Your task to perform on an android device: change the clock display to show seconds Image 0: 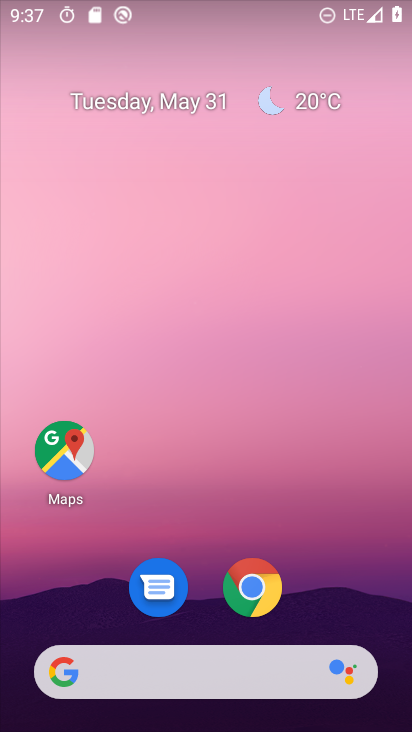
Step 0: drag from (205, 623) to (266, 59)
Your task to perform on an android device: change the clock display to show seconds Image 1: 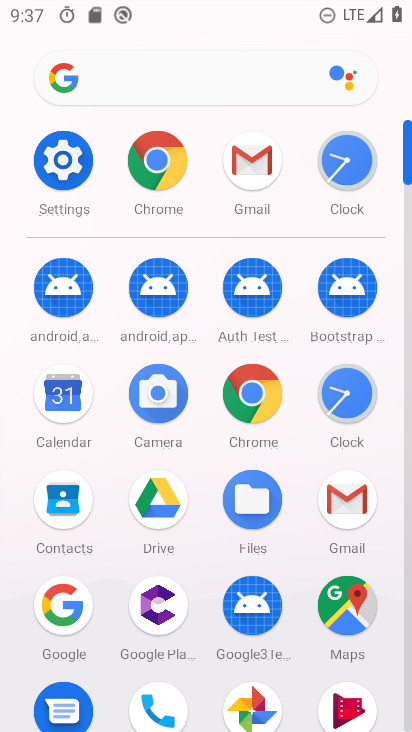
Step 1: click (345, 175)
Your task to perform on an android device: change the clock display to show seconds Image 2: 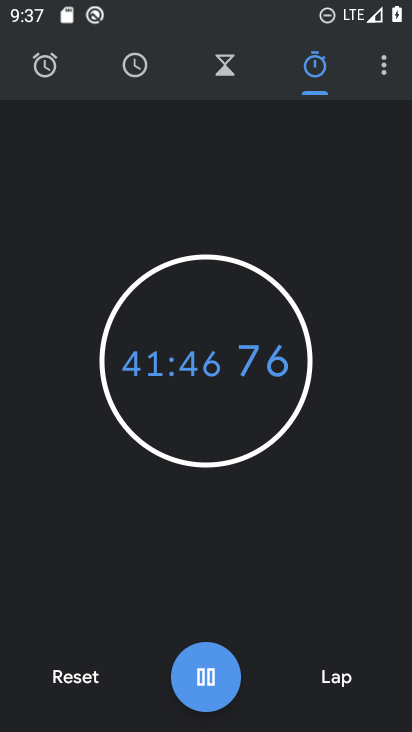
Step 2: click (392, 66)
Your task to perform on an android device: change the clock display to show seconds Image 3: 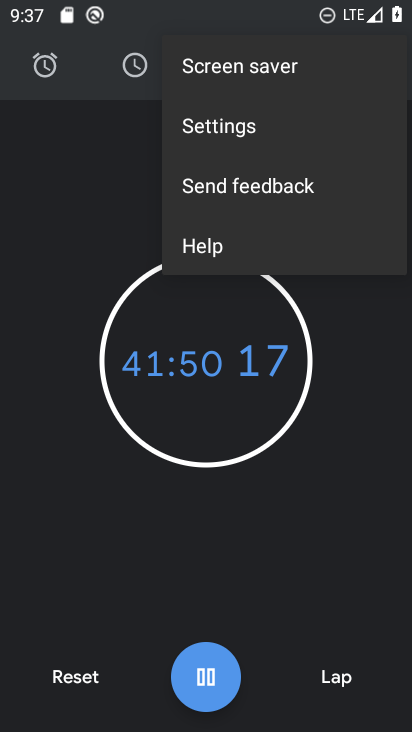
Step 3: click (270, 132)
Your task to perform on an android device: change the clock display to show seconds Image 4: 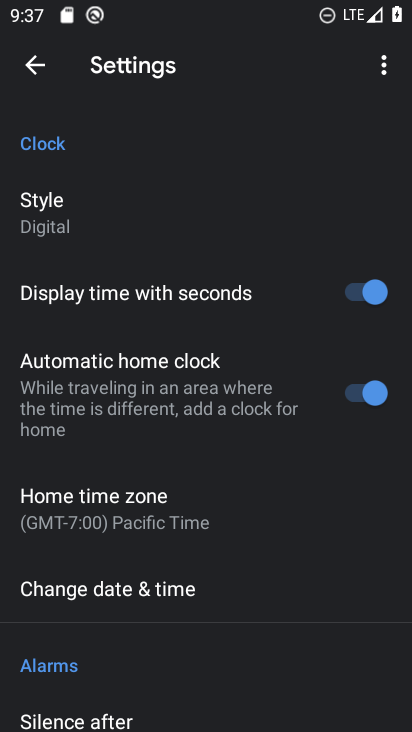
Step 4: task complete